Your task to perform on an android device: Open the phone app and click the voicemail tab. Image 0: 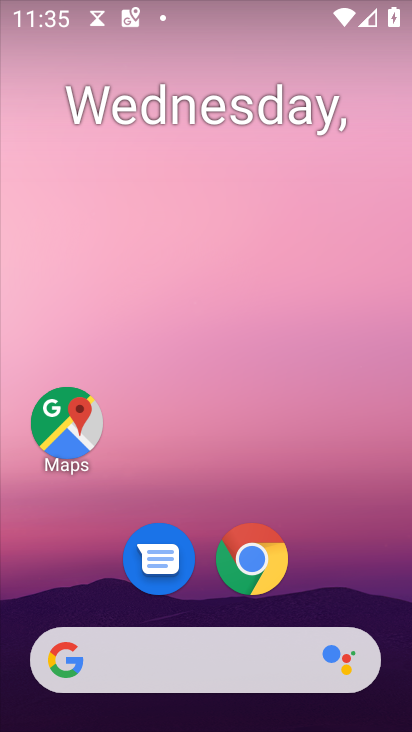
Step 0: drag from (332, 574) to (267, 204)
Your task to perform on an android device: Open the phone app and click the voicemail tab. Image 1: 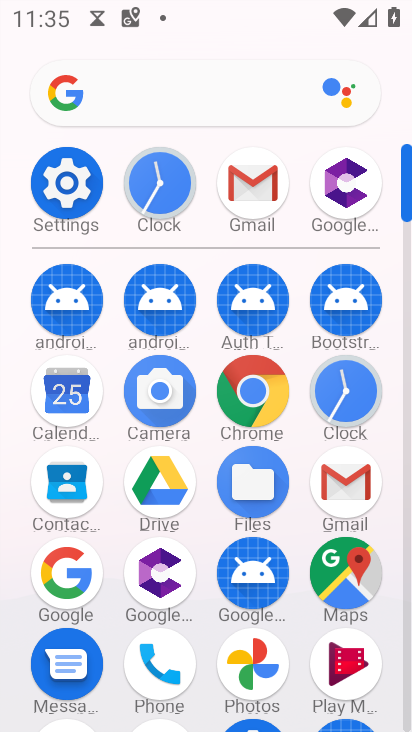
Step 1: click (142, 658)
Your task to perform on an android device: Open the phone app and click the voicemail tab. Image 2: 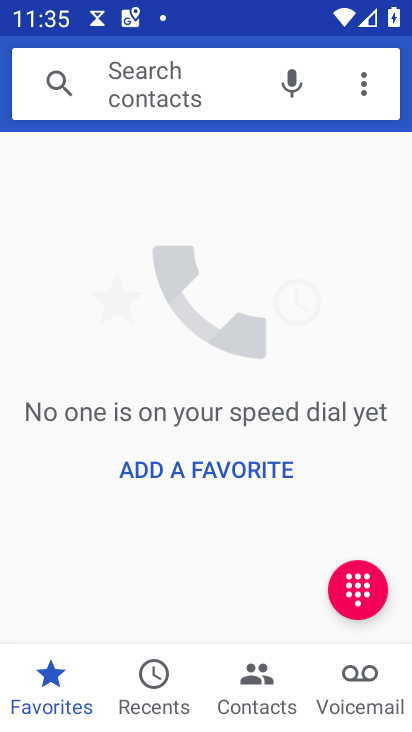
Step 2: click (378, 686)
Your task to perform on an android device: Open the phone app and click the voicemail tab. Image 3: 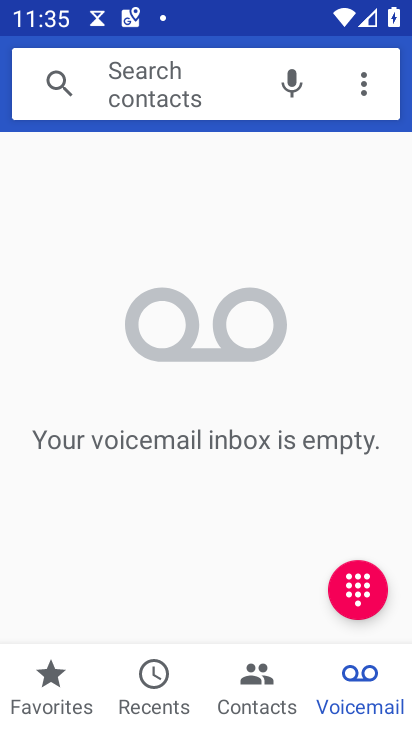
Step 3: task complete